Your task to perform on an android device: star an email in the gmail app Image 0: 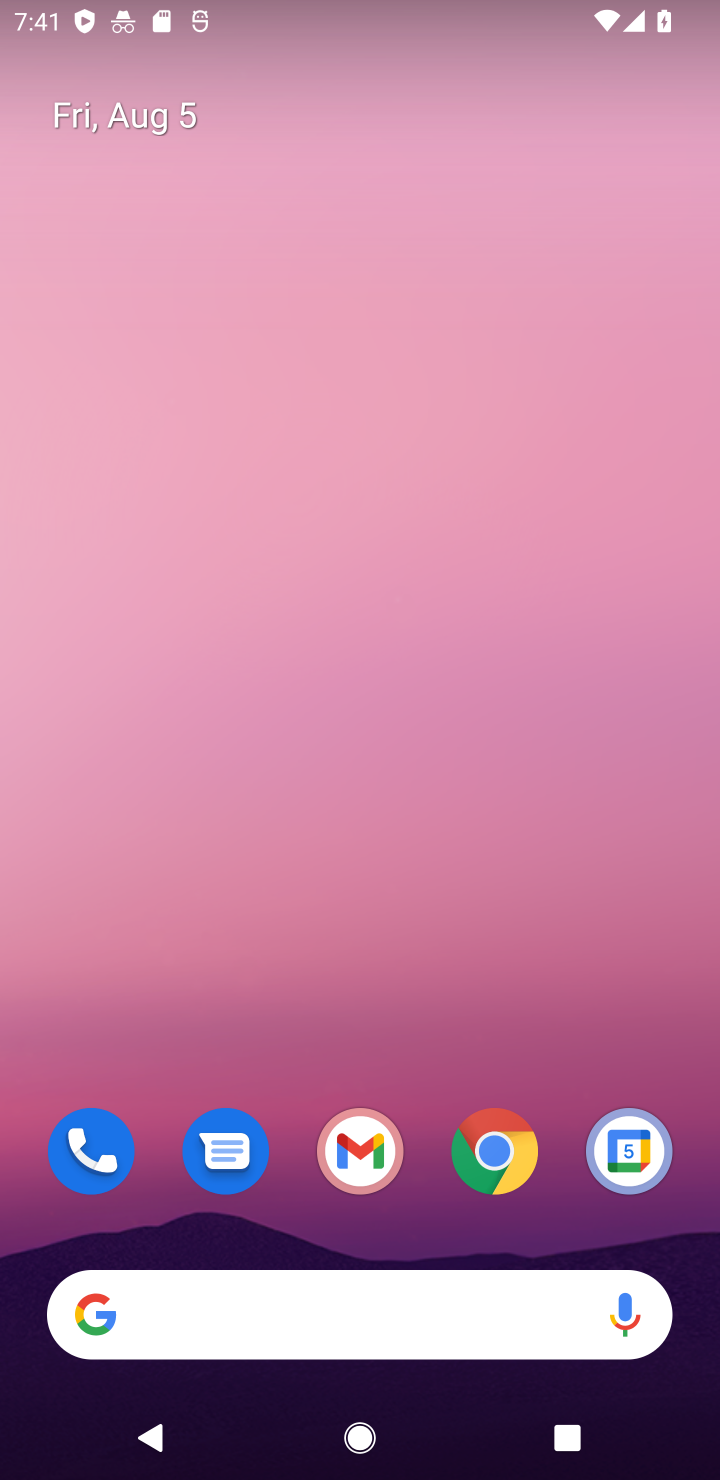
Step 0: drag from (382, 1252) to (382, 39)
Your task to perform on an android device: star an email in the gmail app Image 1: 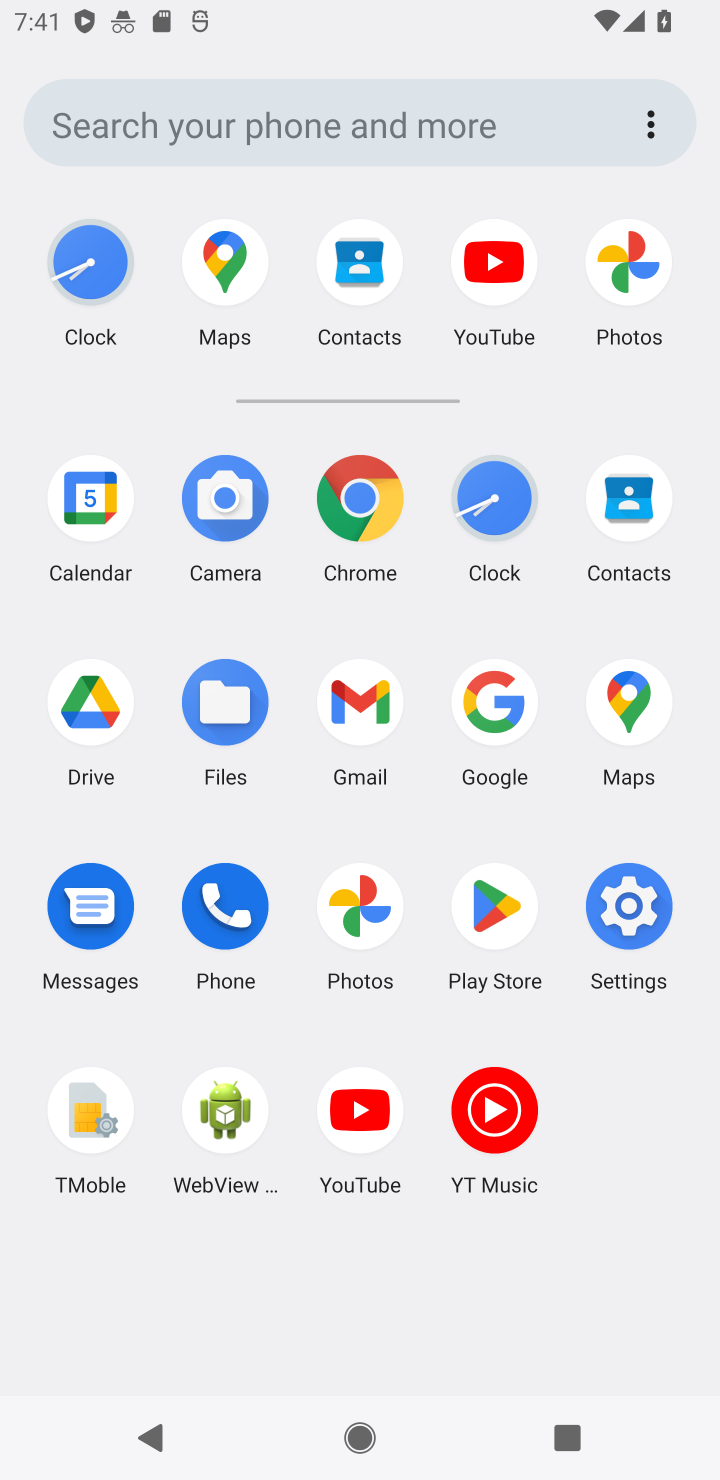
Step 1: click (321, 695)
Your task to perform on an android device: star an email in the gmail app Image 2: 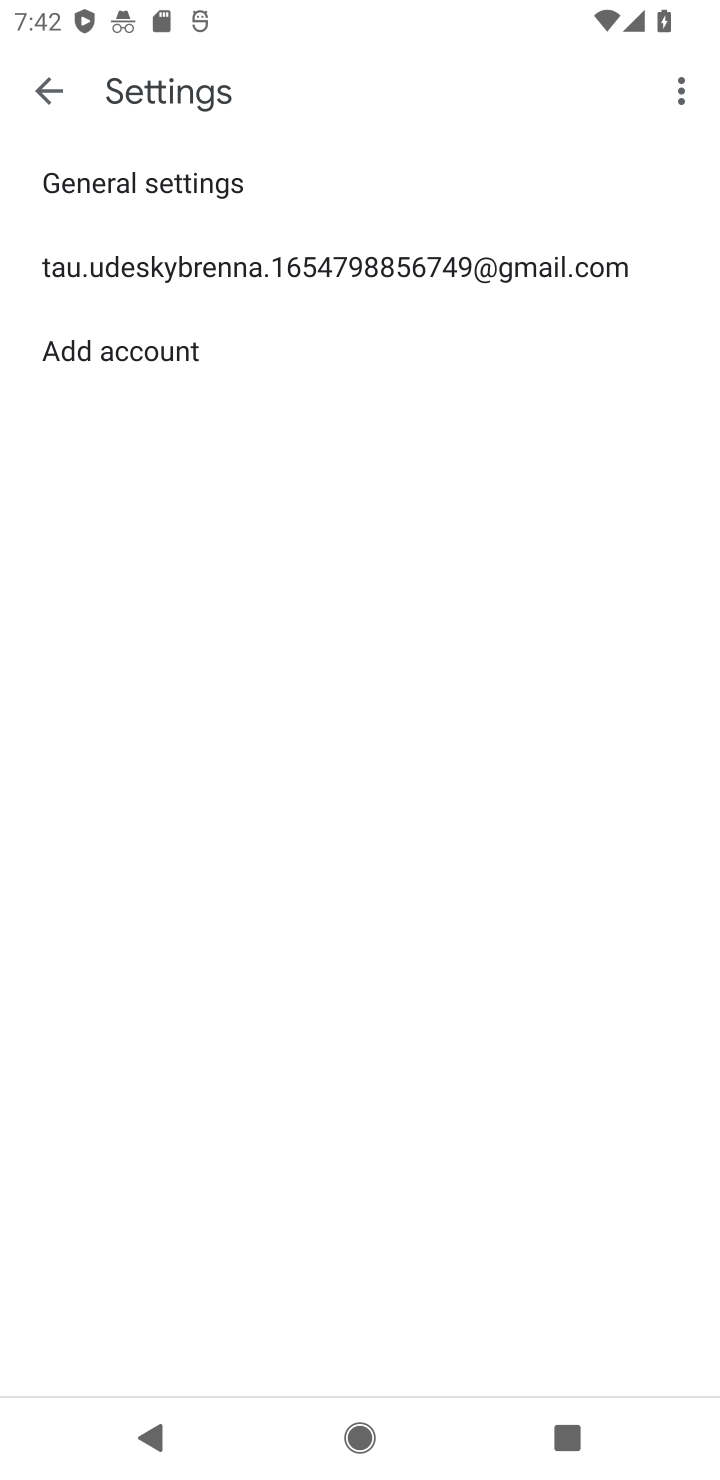
Step 2: click (28, 106)
Your task to perform on an android device: star an email in the gmail app Image 3: 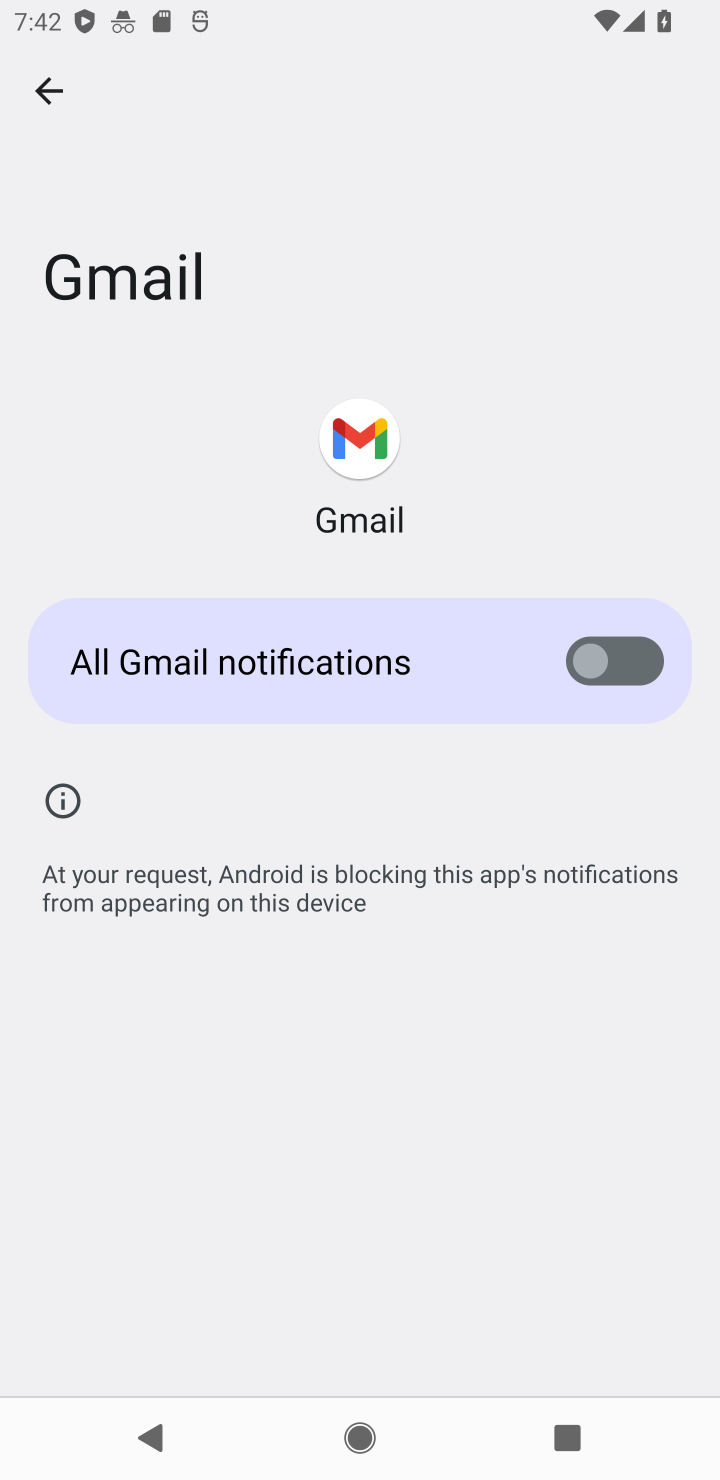
Step 3: click (58, 93)
Your task to perform on an android device: star an email in the gmail app Image 4: 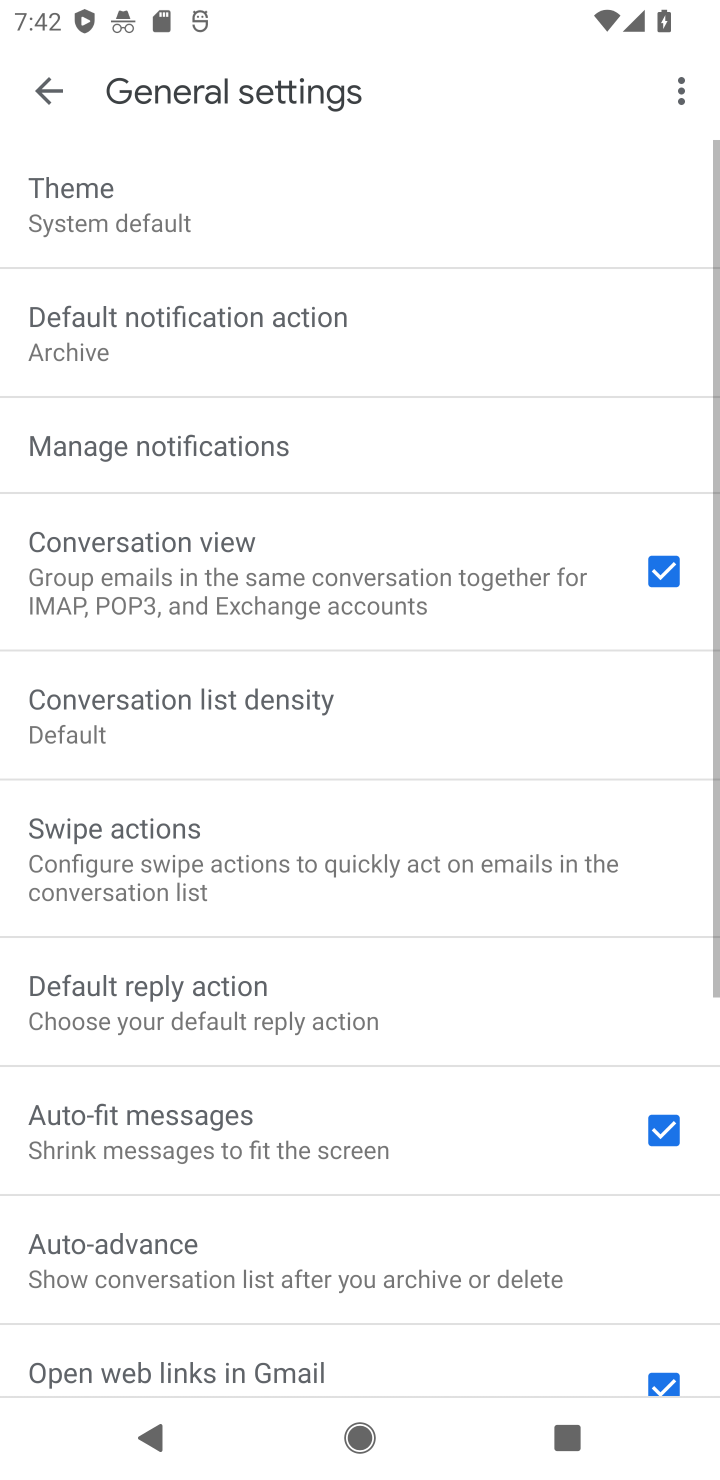
Step 4: click (60, 91)
Your task to perform on an android device: star an email in the gmail app Image 5: 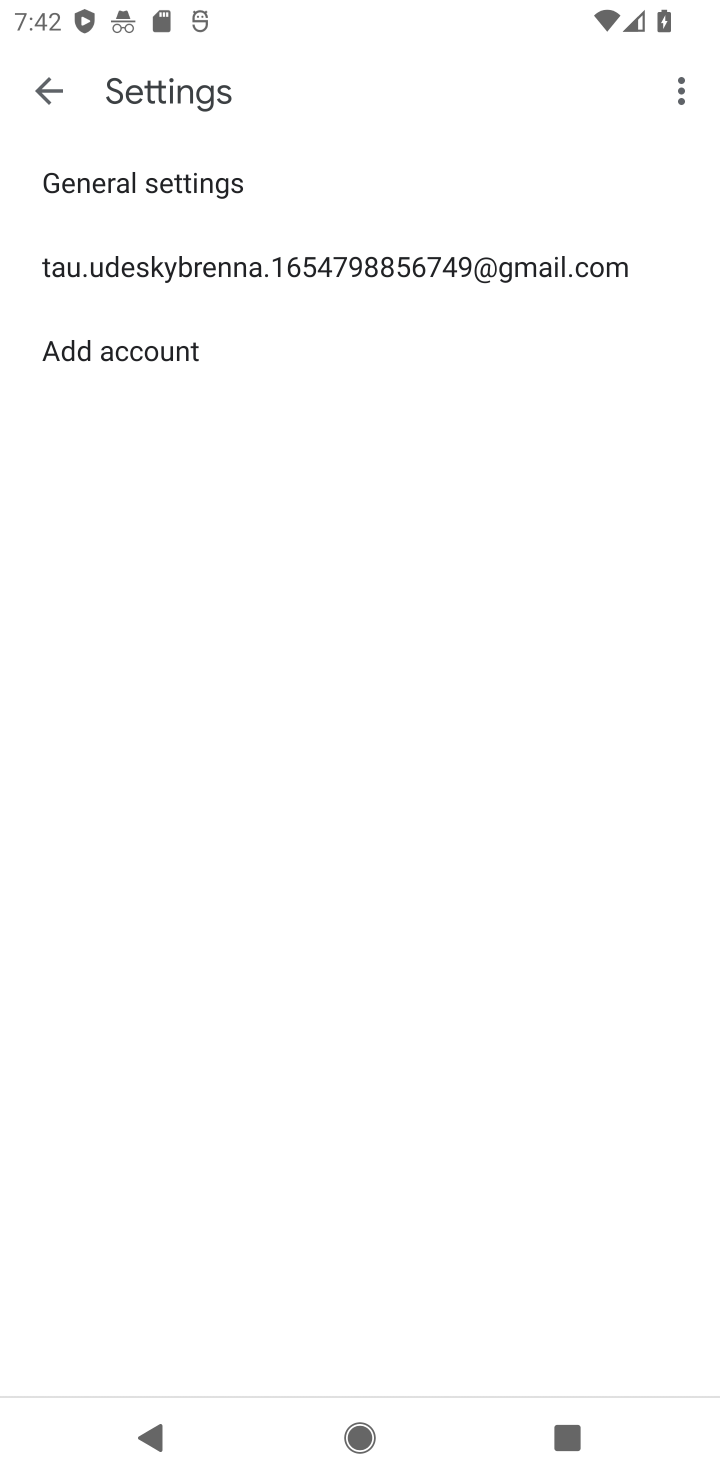
Step 5: click (60, 91)
Your task to perform on an android device: star an email in the gmail app Image 6: 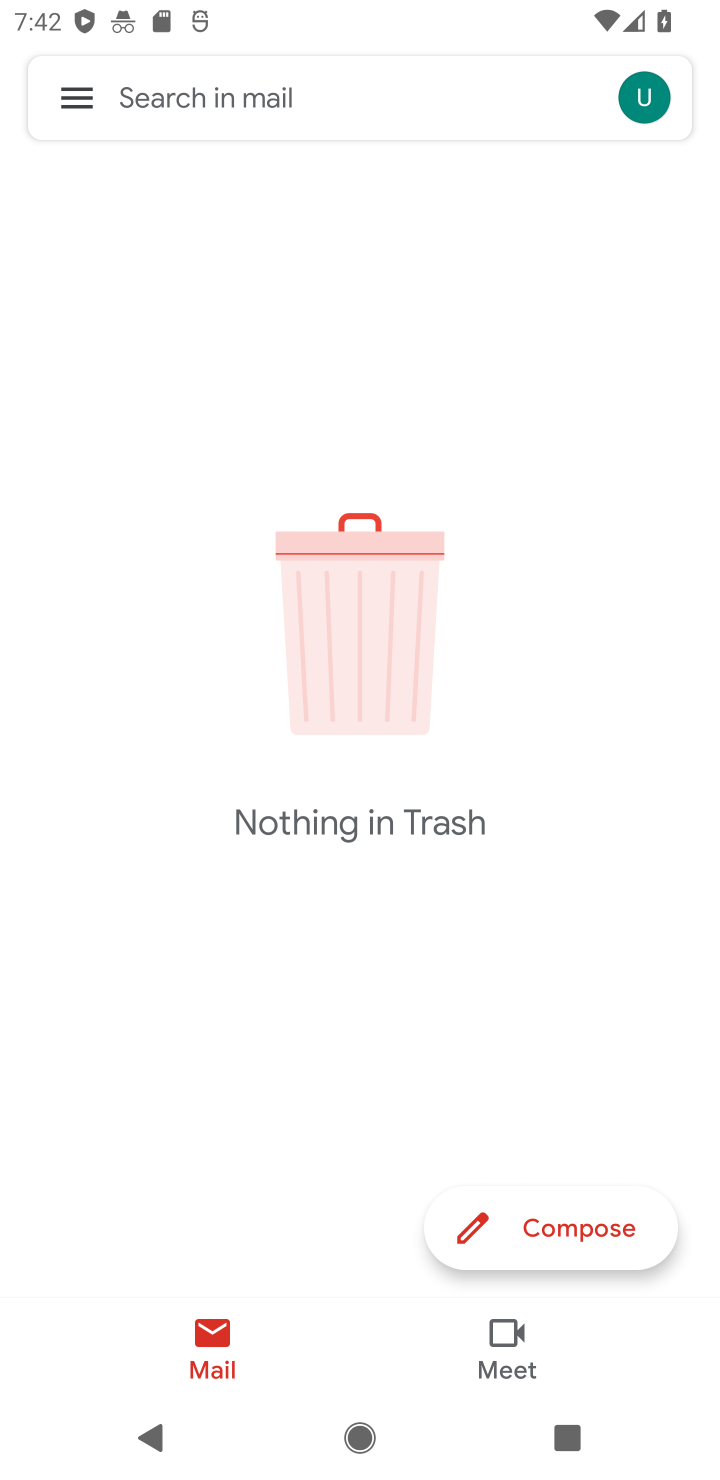
Step 6: task complete